Your task to perform on an android device: Search for 3d printed chess sets on Etsy. Image 0: 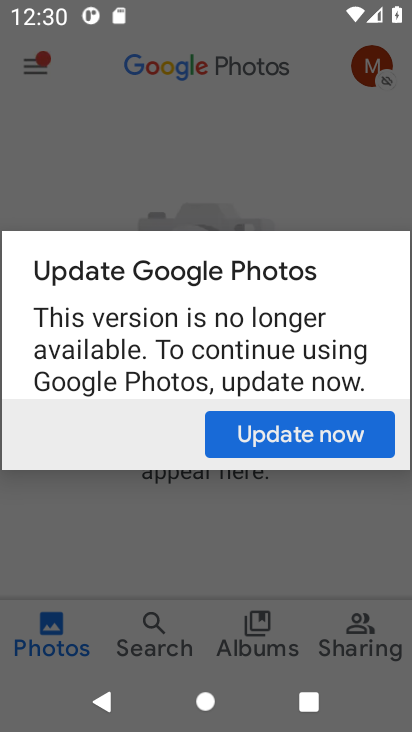
Step 0: press home button
Your task to perform on an android device: Search for 3d printed chess sets on Etsy. Image 1: 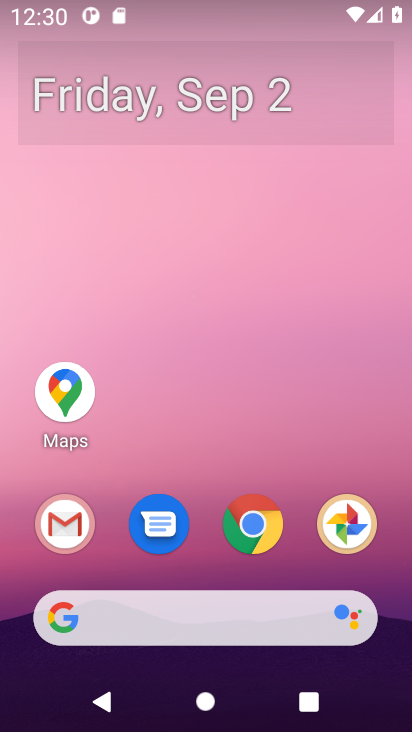
Step 1: click (280, 616)
Your task to perform on an android device: Search for 3d printed chess sets on Etsy. Image 2: 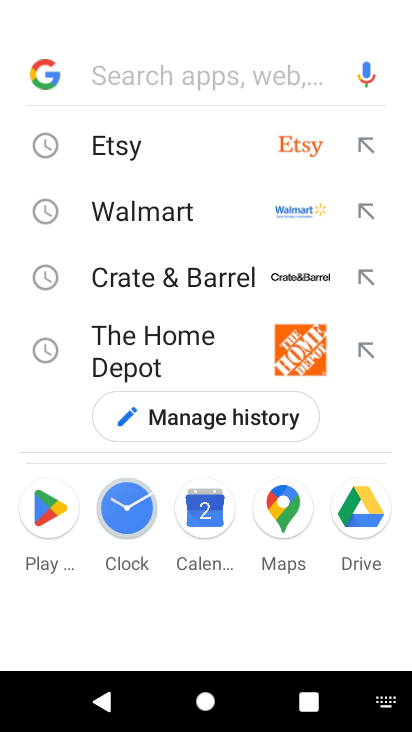
Step 2: click (128, 142)
Your task to perform on an android device: Search for 3d printed chess sets on Etsy. Image 3: 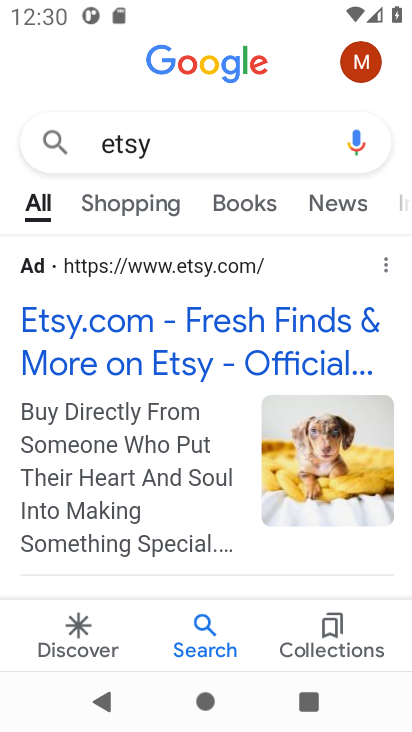
Step 3: click (127, 332)
Your task to perform on an android device: Search for 3d printed chess sets on Etsy. Image 4: 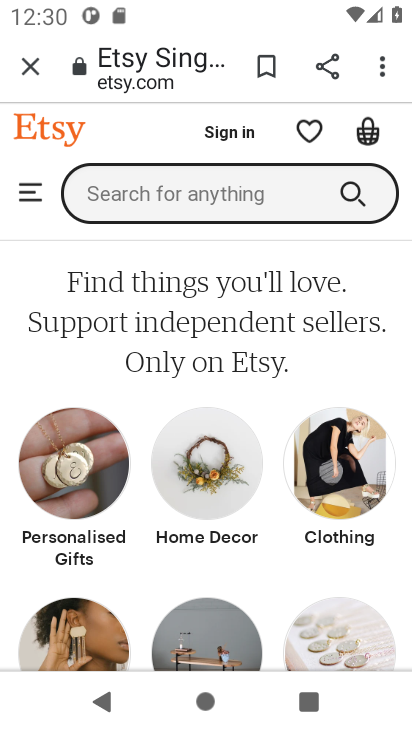
Step 4: click (233, 190)
Your task to perform on an android device: Search for 3d printed chess sets on Etsy. Image 5: 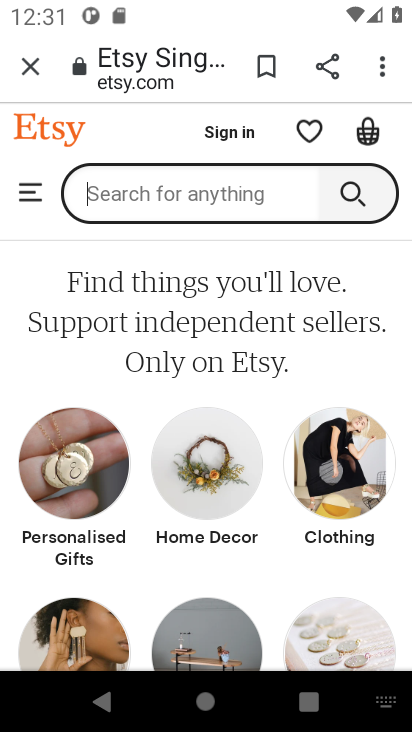
Step 5: press enter
Your task to perform on an android device: Search for 3d printed chess sets on Etsy. Image 6: 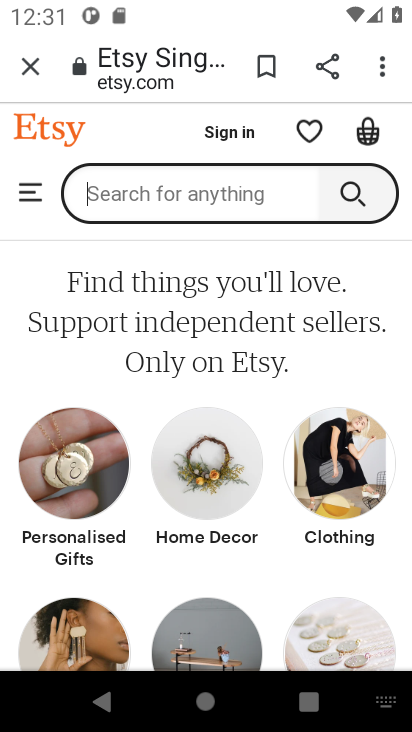
Step 6: type " 3d printed chess sets"
Your task to perform on an android device: Search for 3d printed chess sets on Etsy. Image 7: 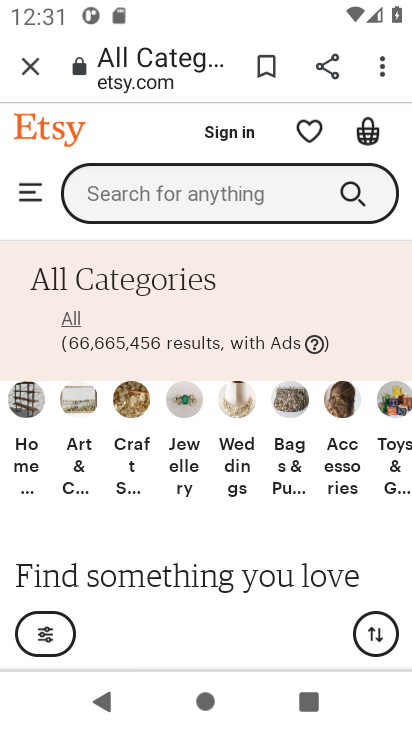
Step 7: click (237, 198)
Your task to perform on an android device: Search for 3d printed chess sets on Etsy. Image 8: 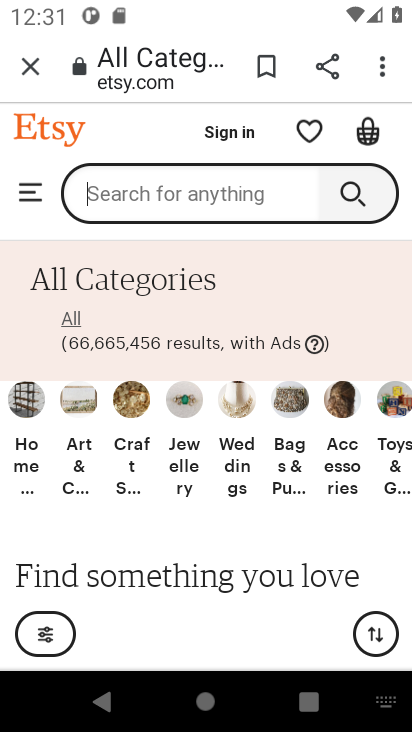
Step 8: type " 3d printed chess sets"
Your task to perform on an android device: Search for 3d printed chess sets on Etsy. Image 9: 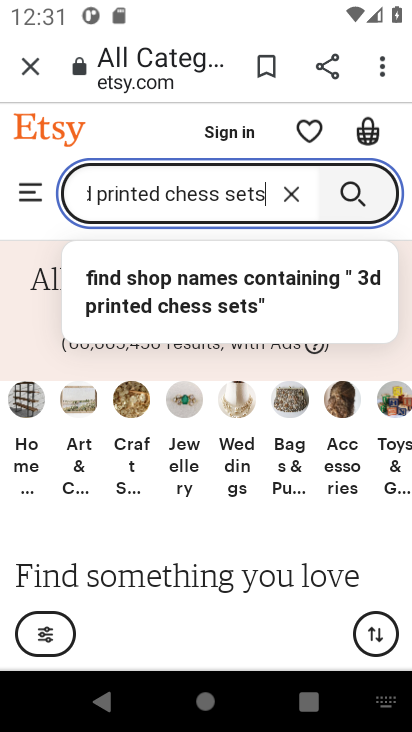
Step 9: click (353, 195)
Your task to perform on an android device: Search for 3d printed chess sets on Etsy. Image 10: 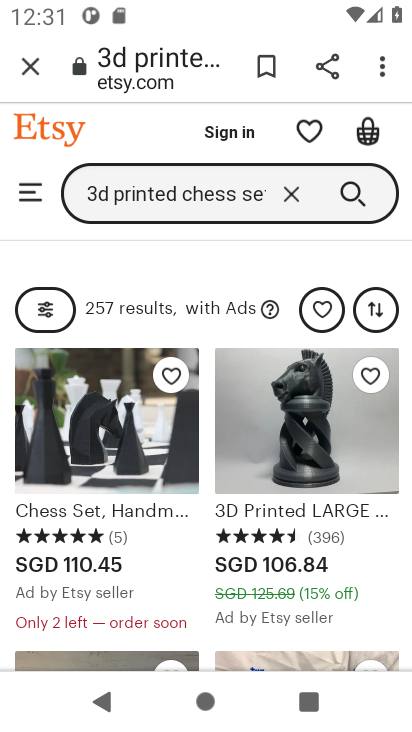
Step 10: task complete